Your task to perform on an android device: Open Chrome and go to settings Image 0: 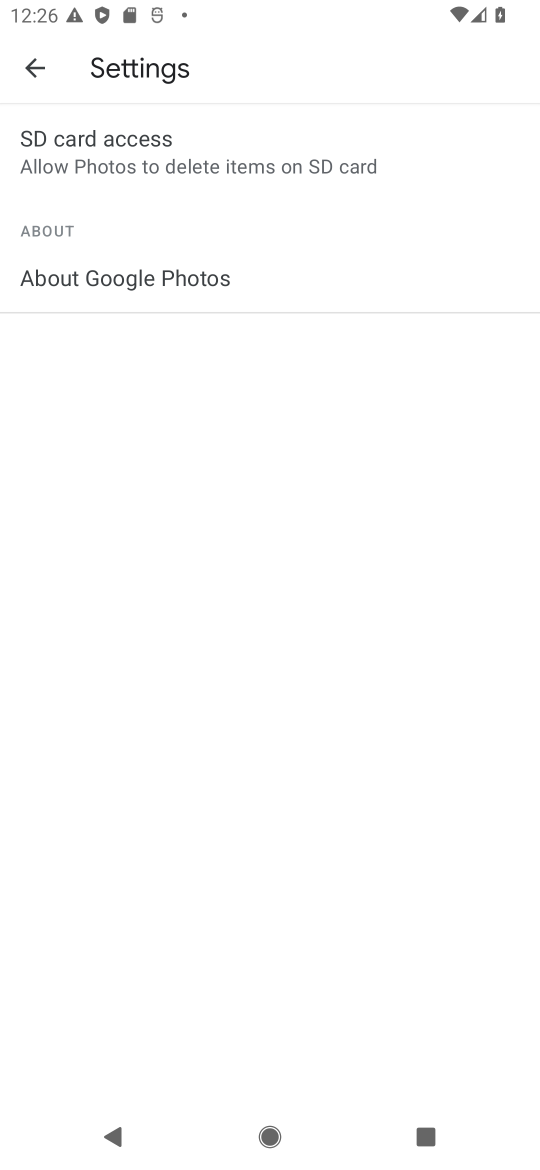
Step 0: press home button
Your task to perform on an android device: Open Chrome and go to settings Image 1: 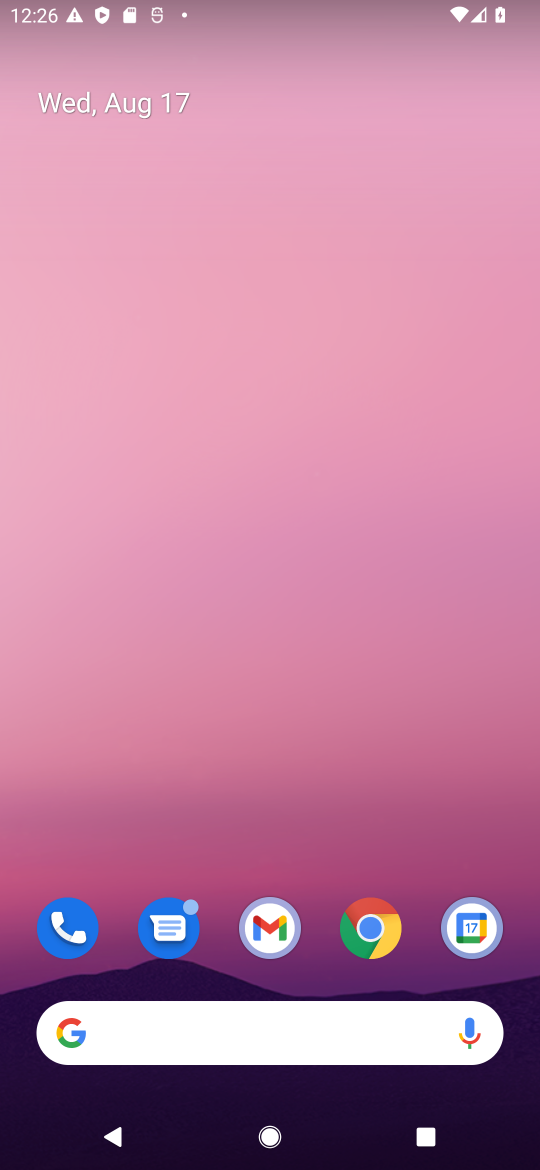
Step 1: click (366, 916)
Your task to perform on an android device: Open Chrome and go to settings Image 2: 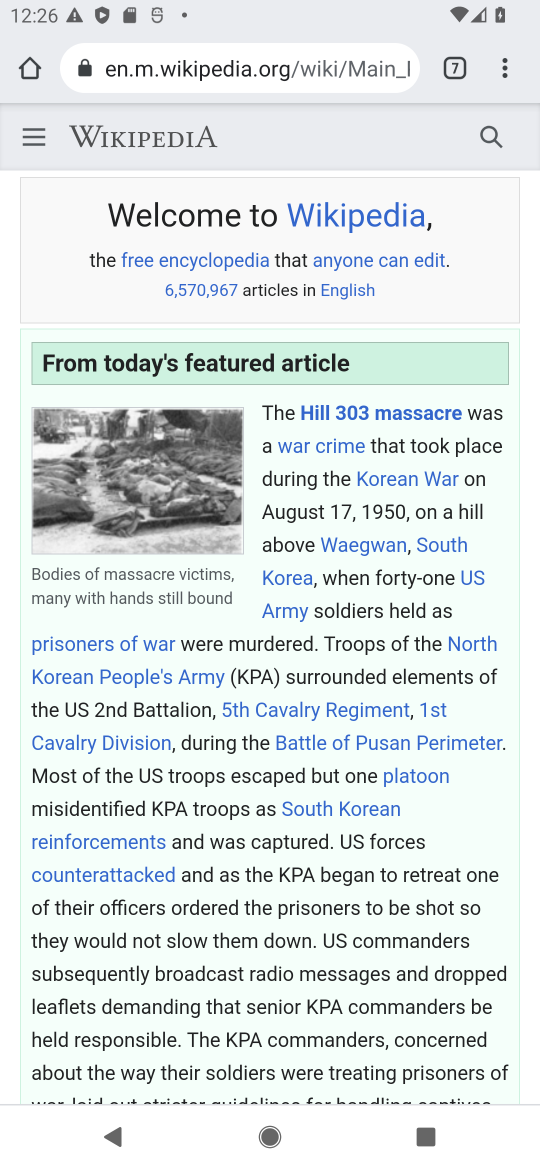
Step 2: click (505, 67)
Your task to perform on an android device: Open Chrome and go to settings Image 3: 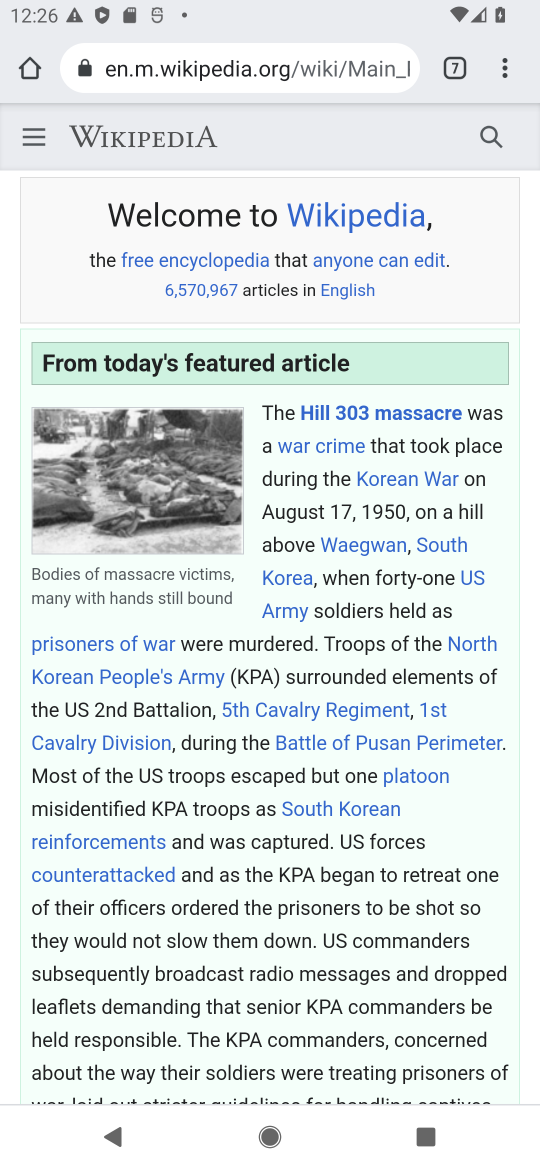
Step 3: click (495, 61)
Your task to perform on an android device: Open Chrome and go to settings Image 4: 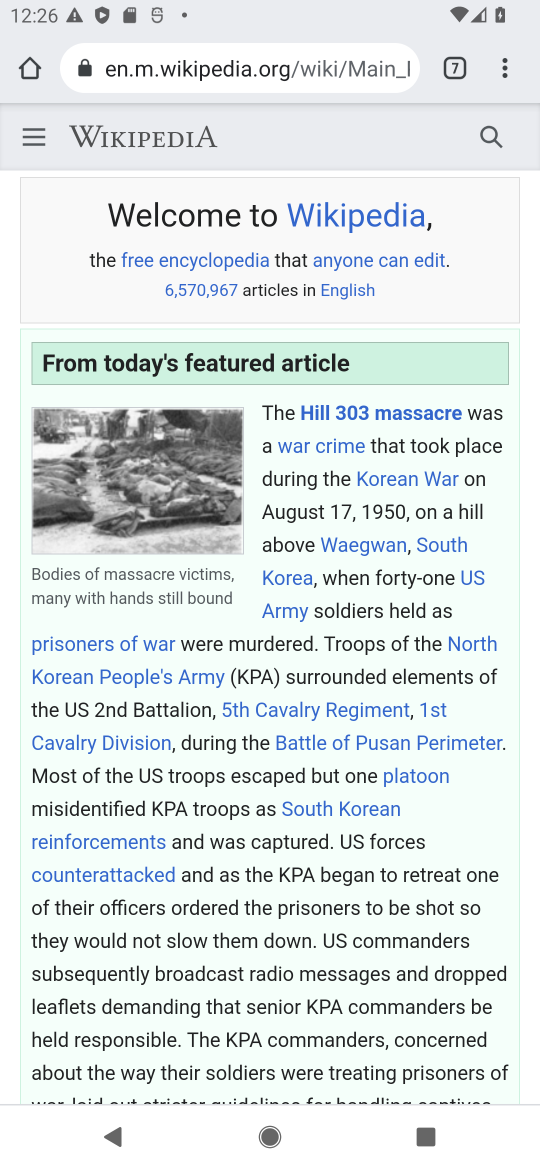
Step 4: task complete